Your task to perform on an android device: install app "Venmo" Image 0: 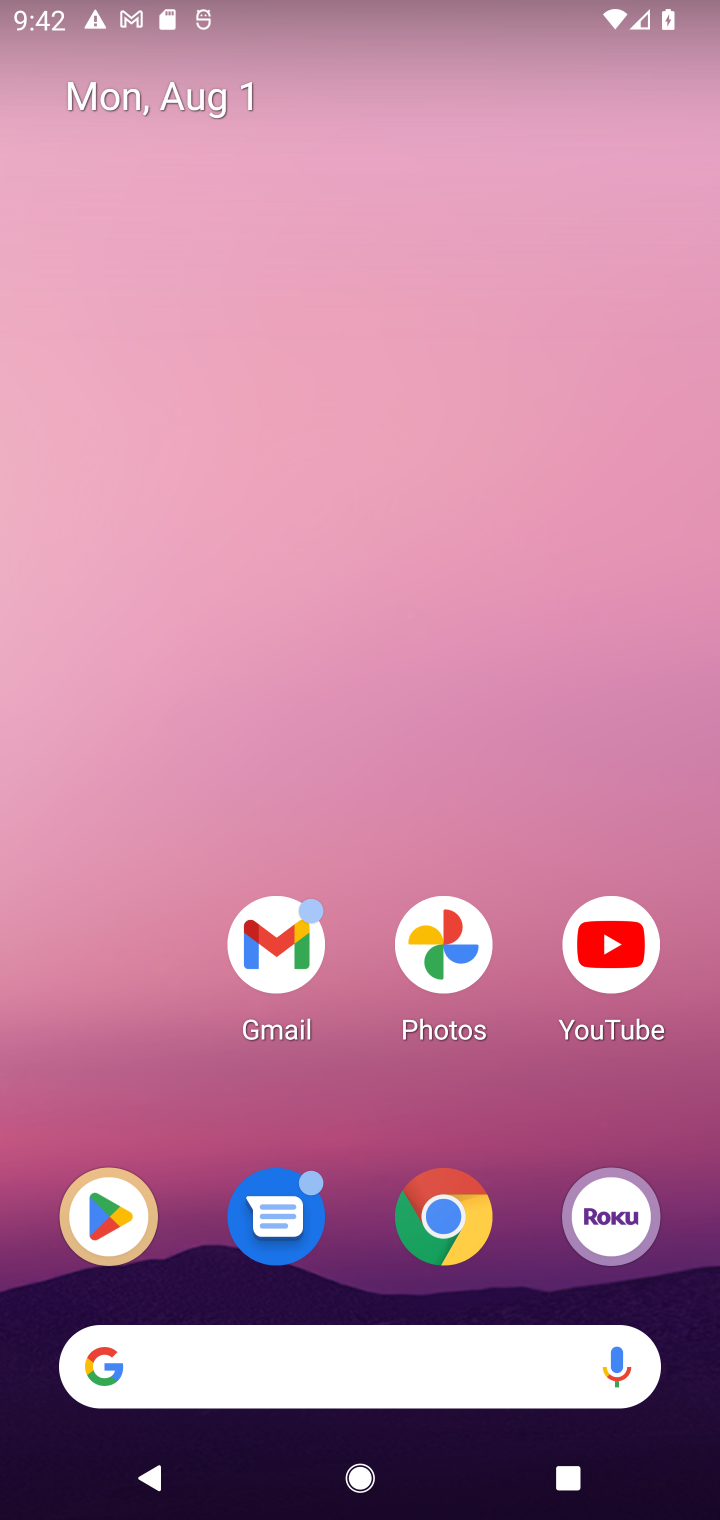
Step 0: click (122, 1218)
Your task to perform on an android device: install app "Venmo" Image 1: 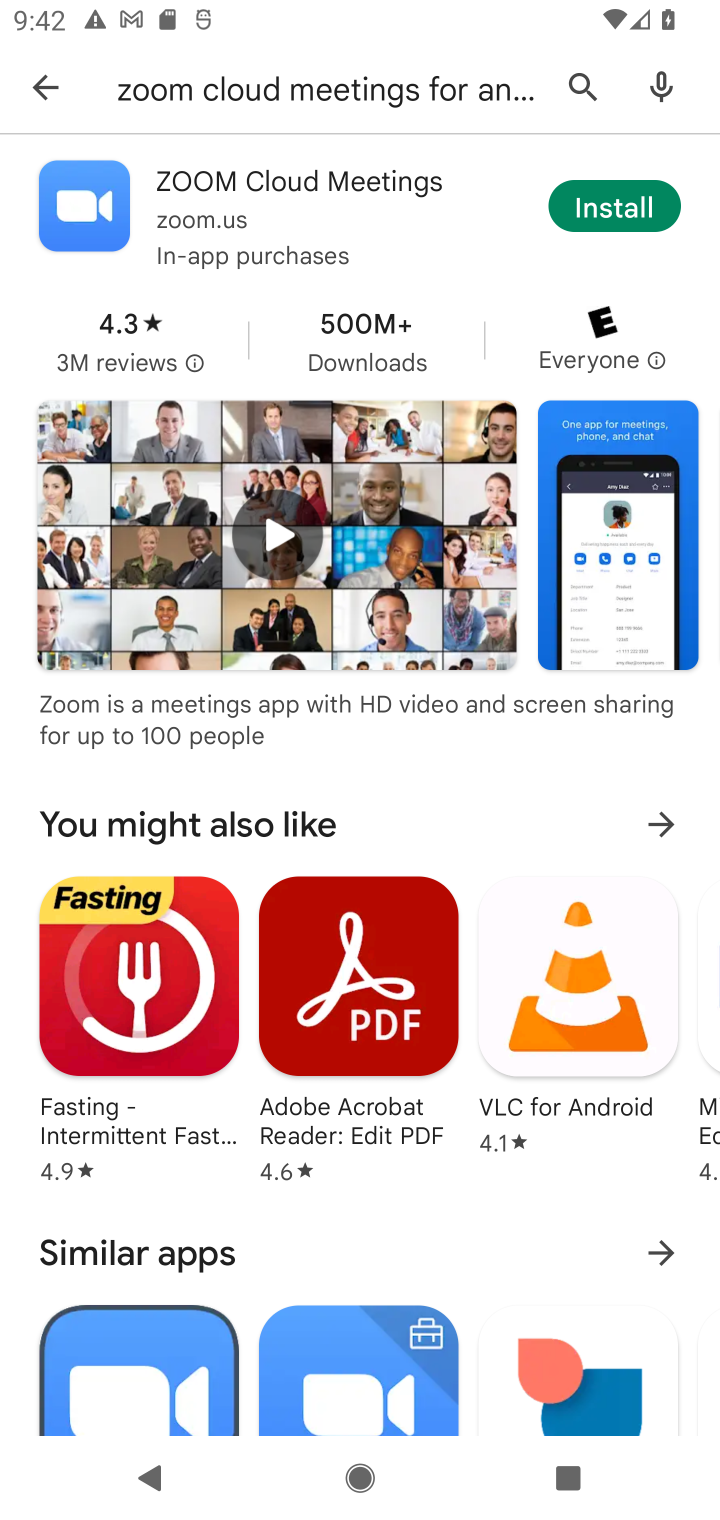
Step 1: click (571, 80)
Your task to perform on an android device: install app "Venmo" Image 2: 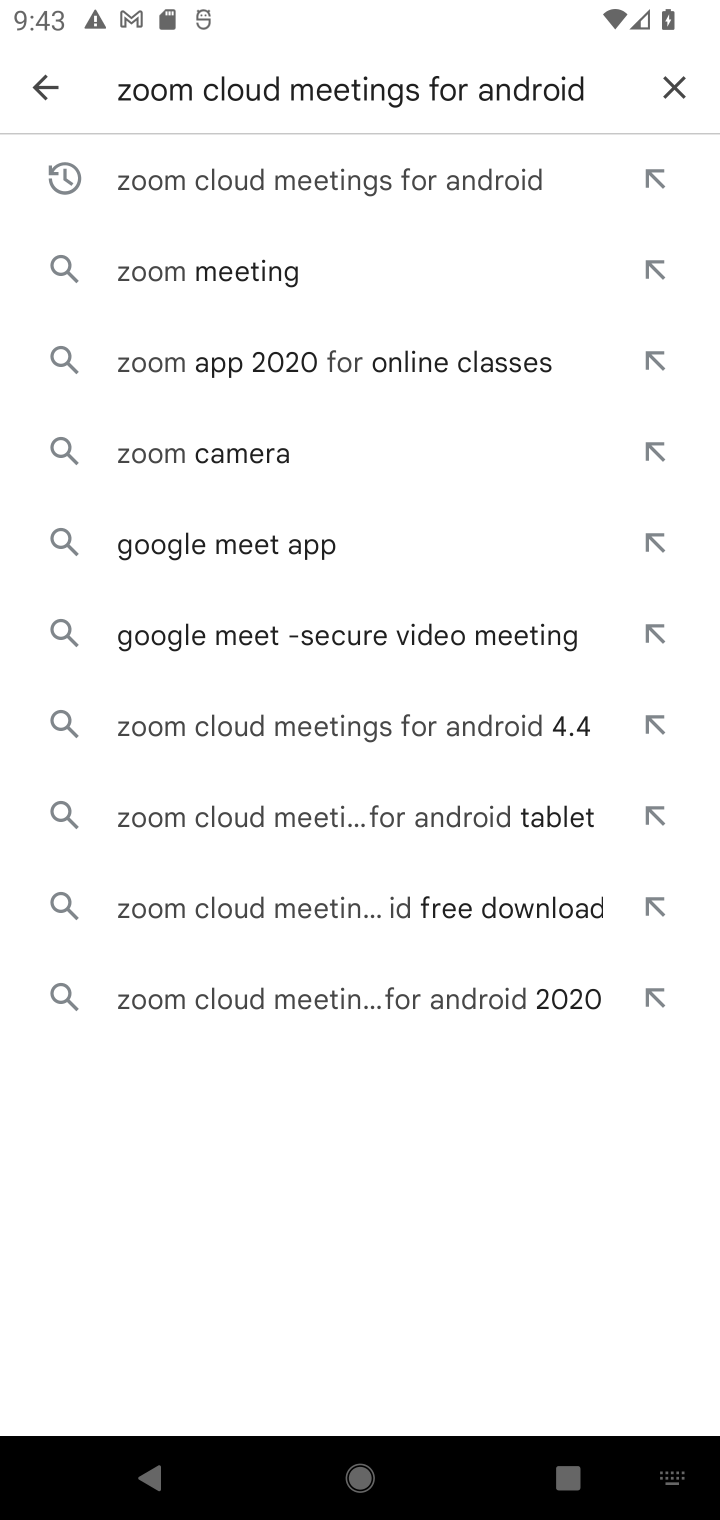
Step 2: click (672, 90)
Your task to perform on an android device: install app "Venmo" Image 3: 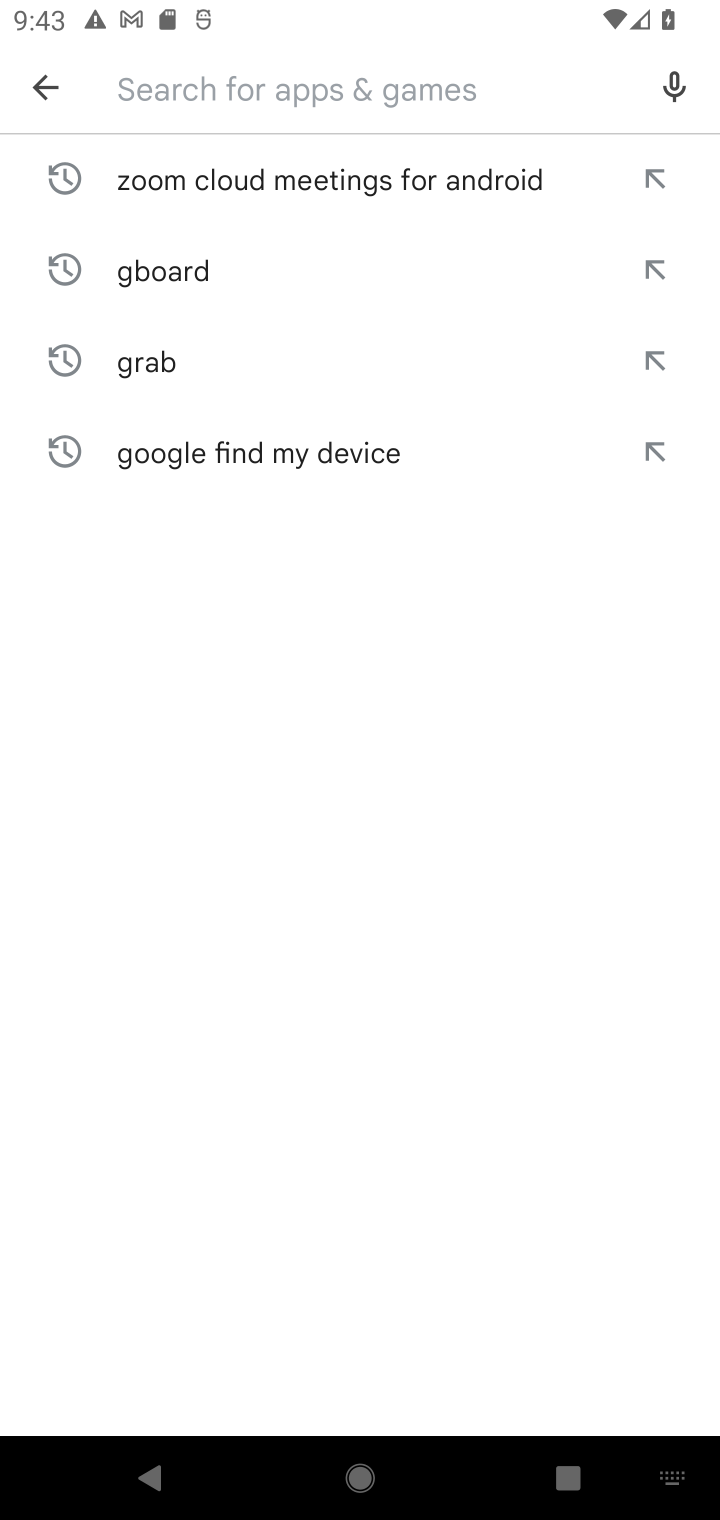
Step 3: type "Venmo"
Your task to perform on an android device: install app "Venmo" Image 4: 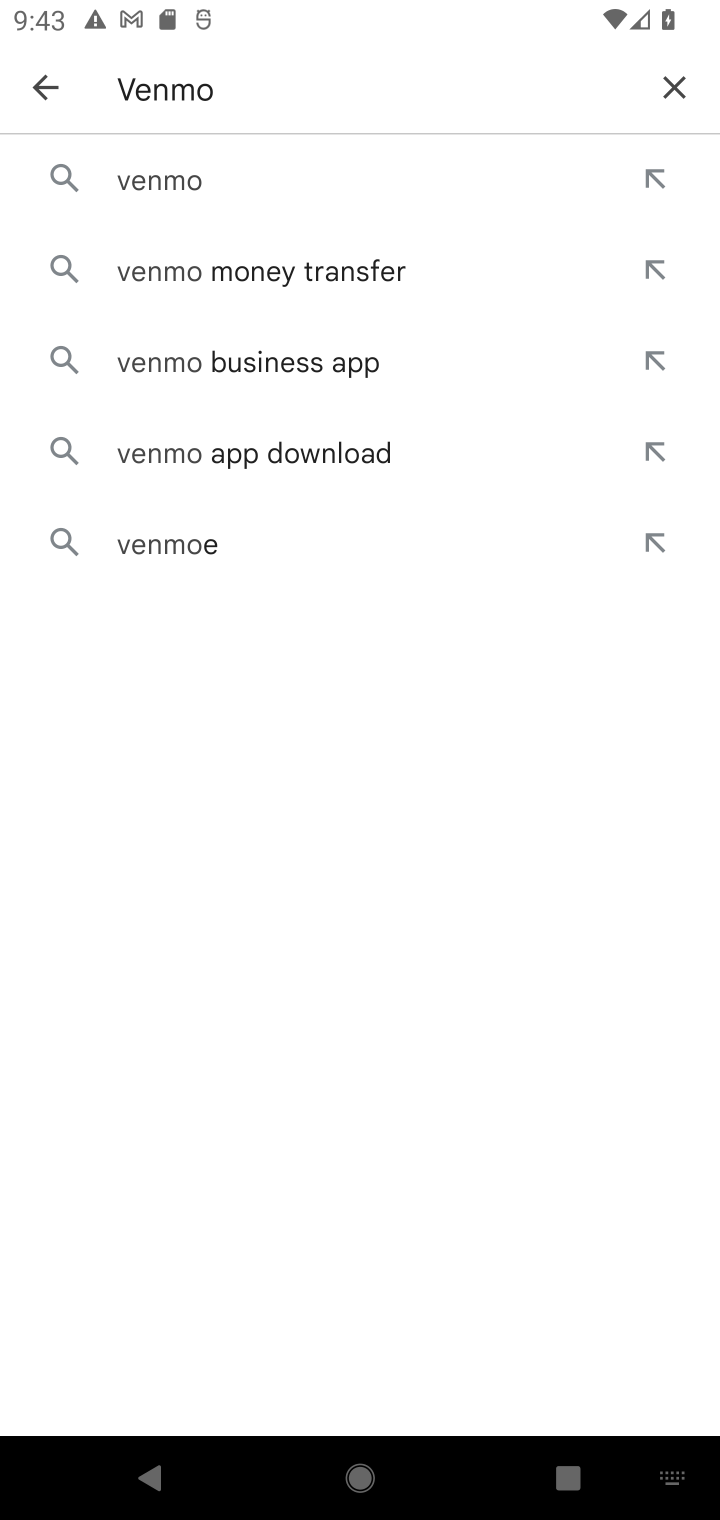
Step 4: click (143, 191)
Your task to perform on an android device: install app "Venmo" Image 5: 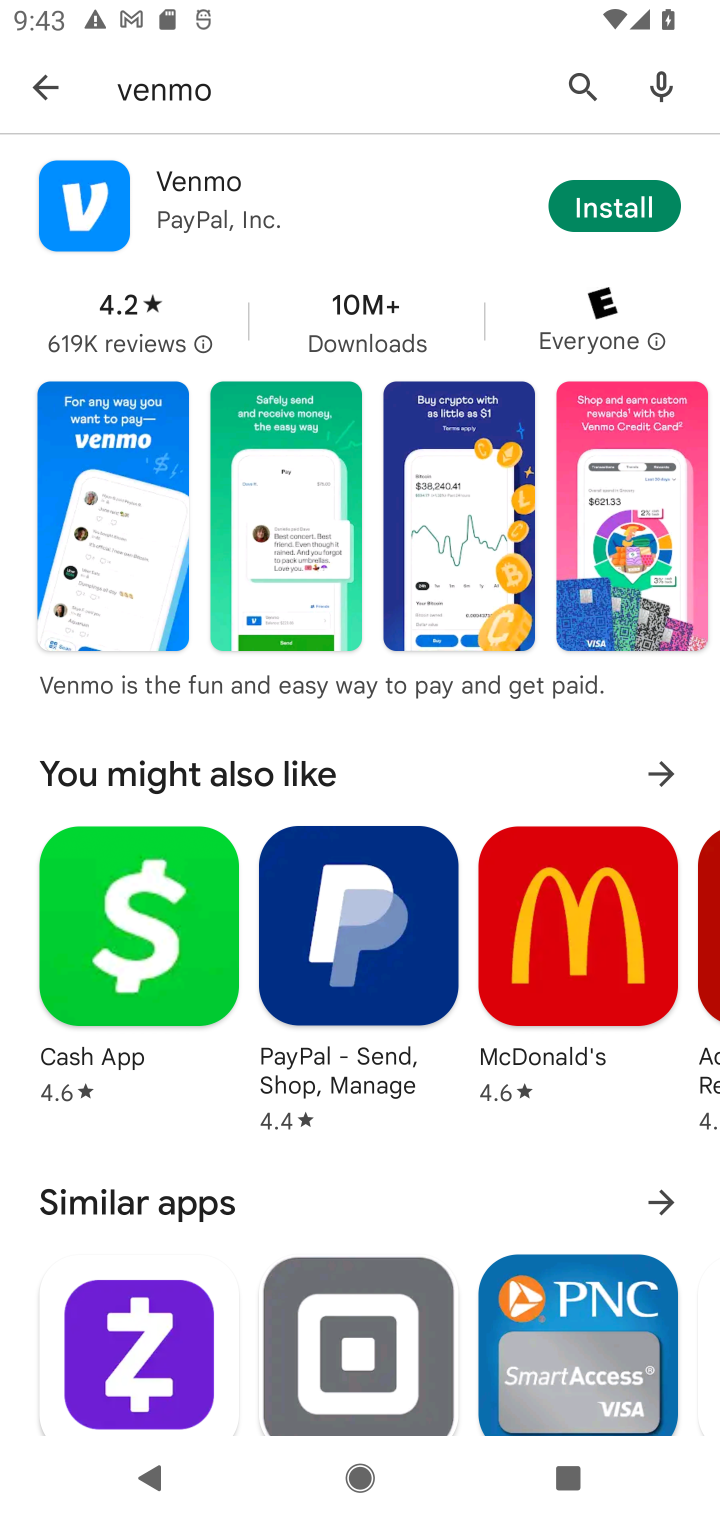
Step 5: click (598, 214)
Your task to perform on an android device: install app "Venmo" Image 6: 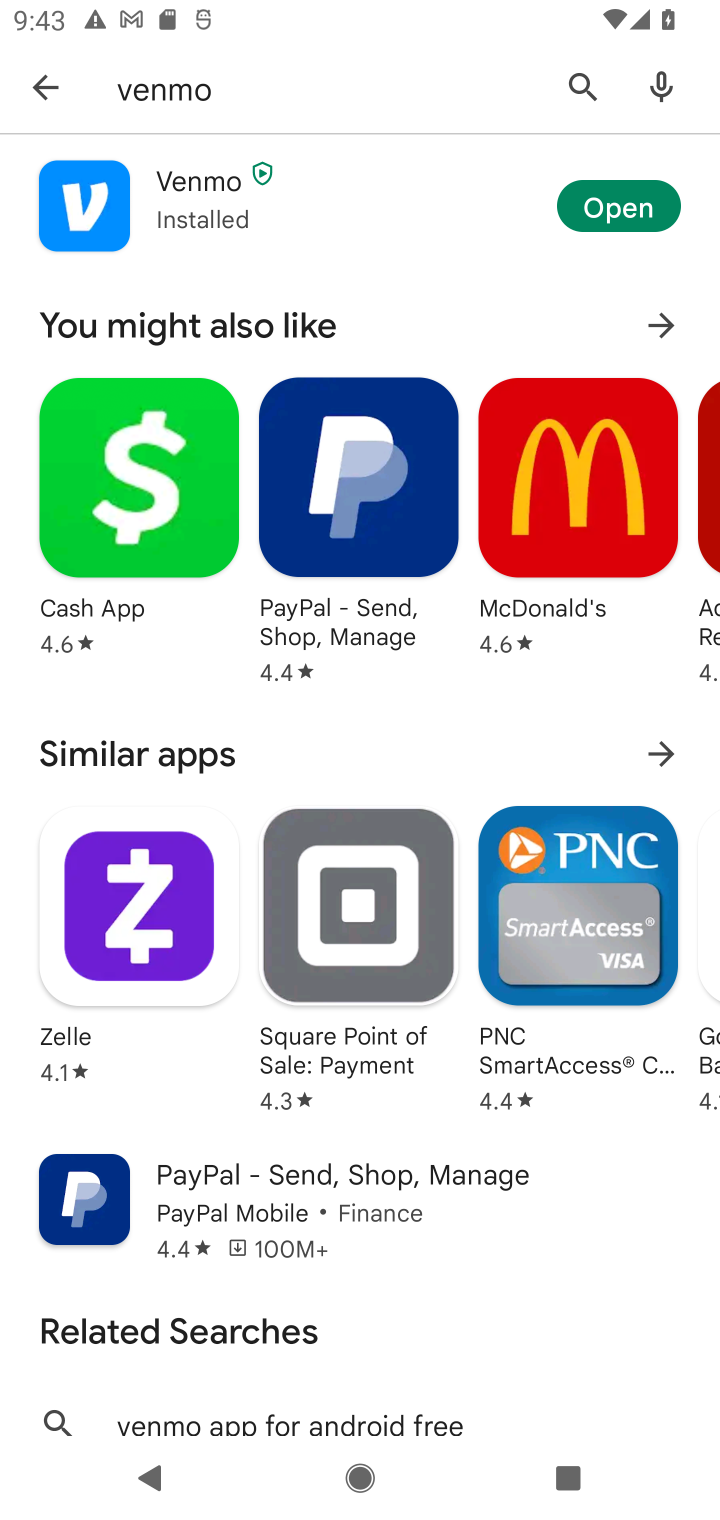
Step 6: task complete